Your task to perform on an android device: change keyboard looks Image 0: 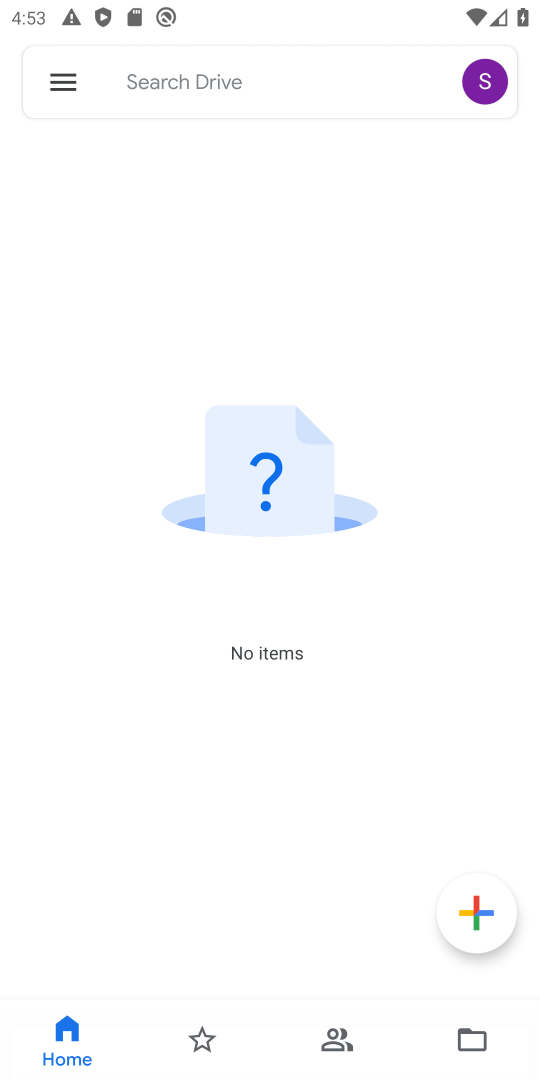
Step 0: press back button
Your task to perform on an android device: change keyboard looks Image 1: 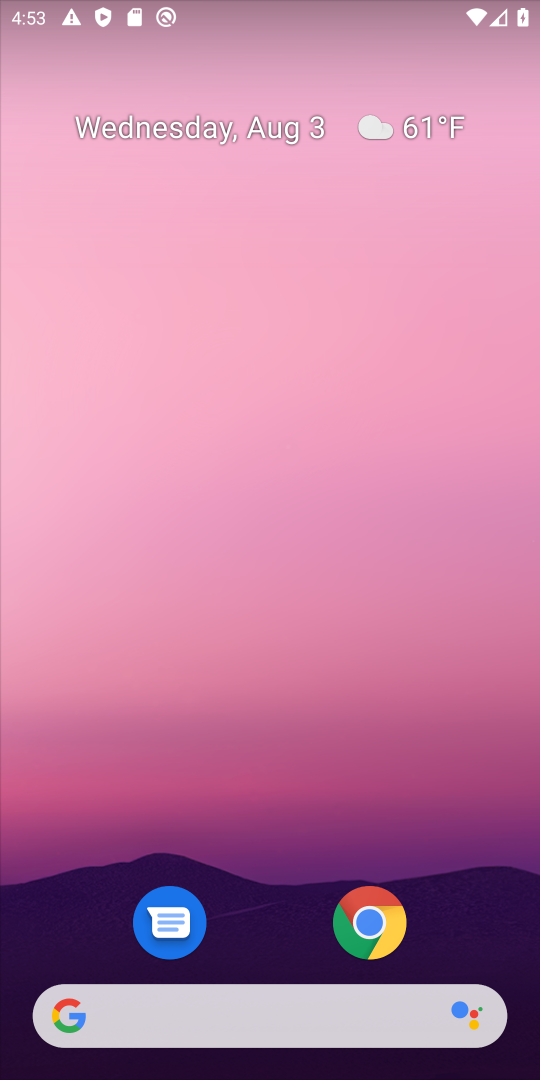
Step 1: drag from (471, 949) to (296, 31)
Your task to perform on an android device: change keyboard looks Image 2: 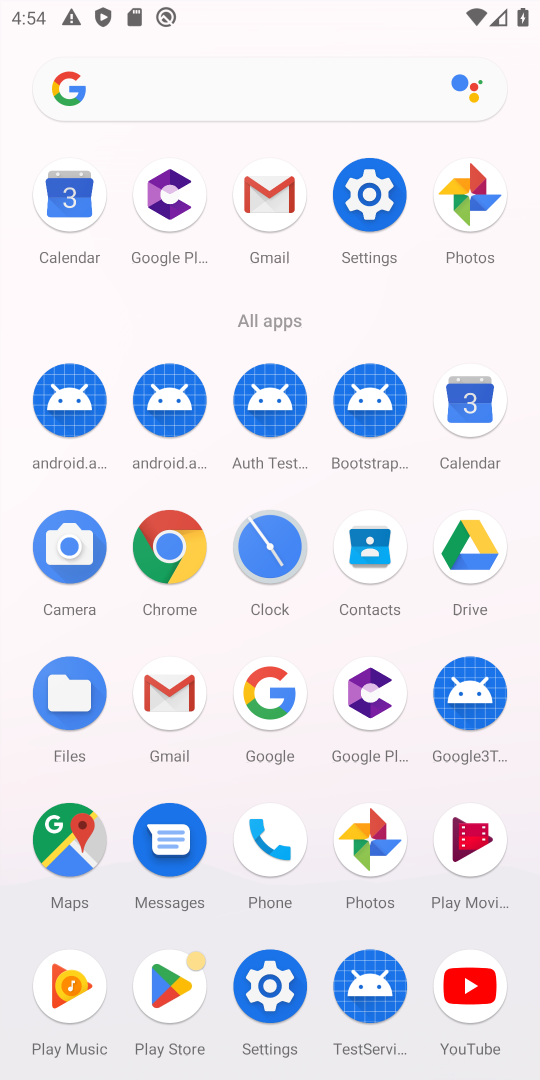
Step 2: click (385, 216)
Your task to perform on an android device: change keyboard looks Image 3: 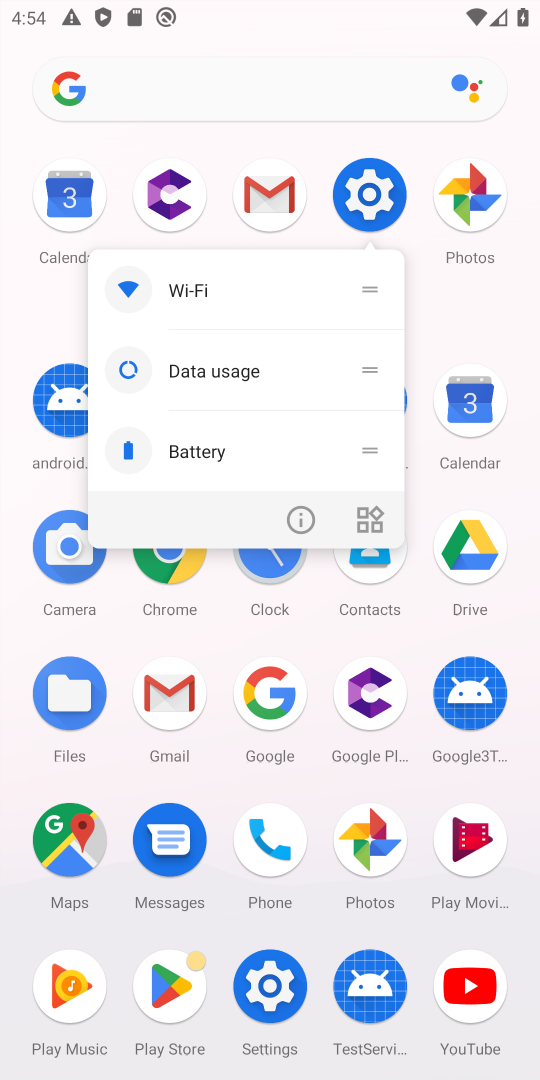
Step 3: click (385, 216)
Your task to perform on an android device: change keyboard looks Image 4: 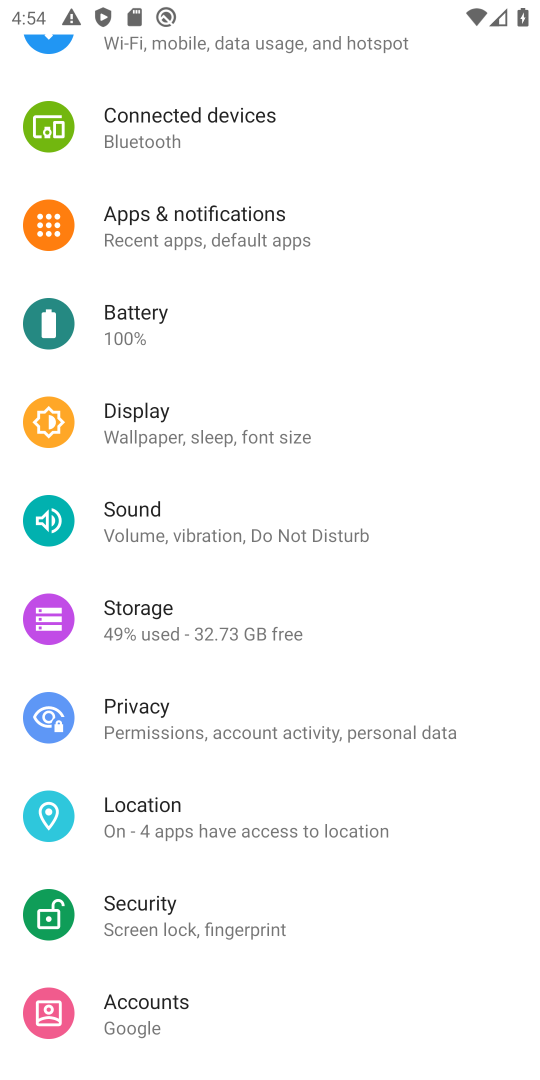
Step 4: drag from (370, 937) to (315, 144)
Your task to perform on an android device: change keyboard looks Image 5: 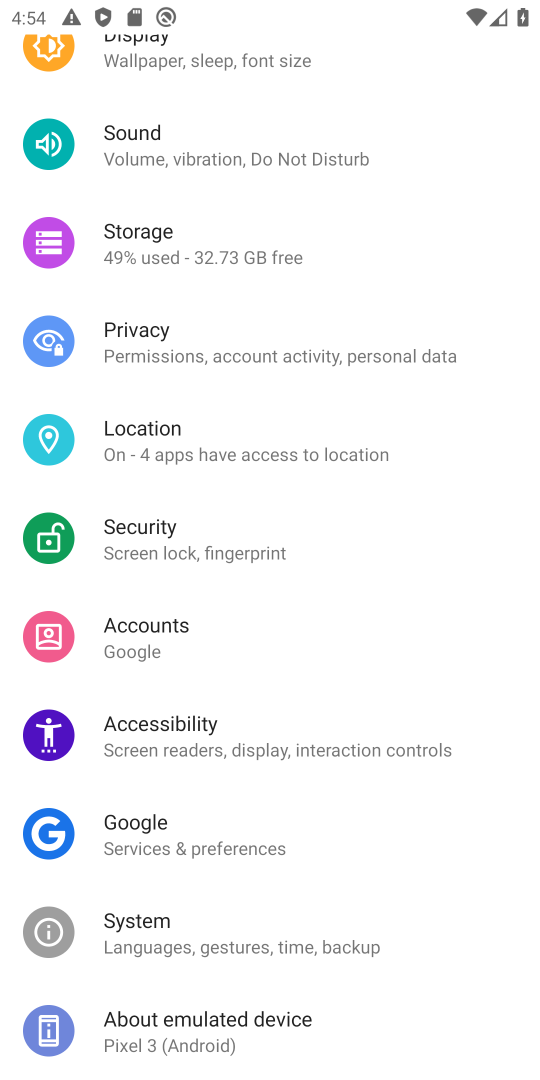
Step 5: click (279, 952)
Your task to perform on an android device: change keyboard looks Image 6: 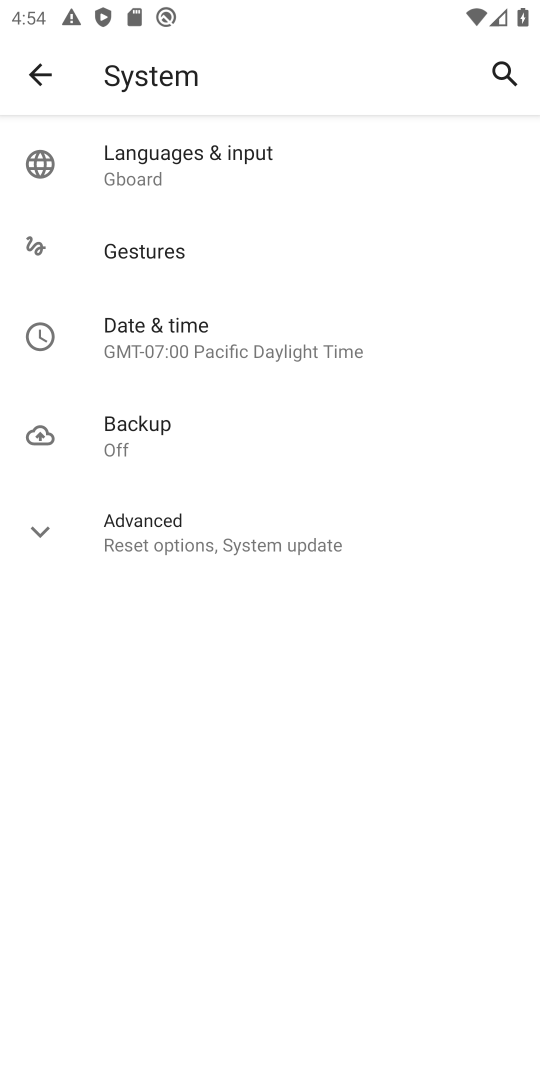
Step 6: click (229, 159)
Your task to perform on an android device: change keyboard looks Image 7: 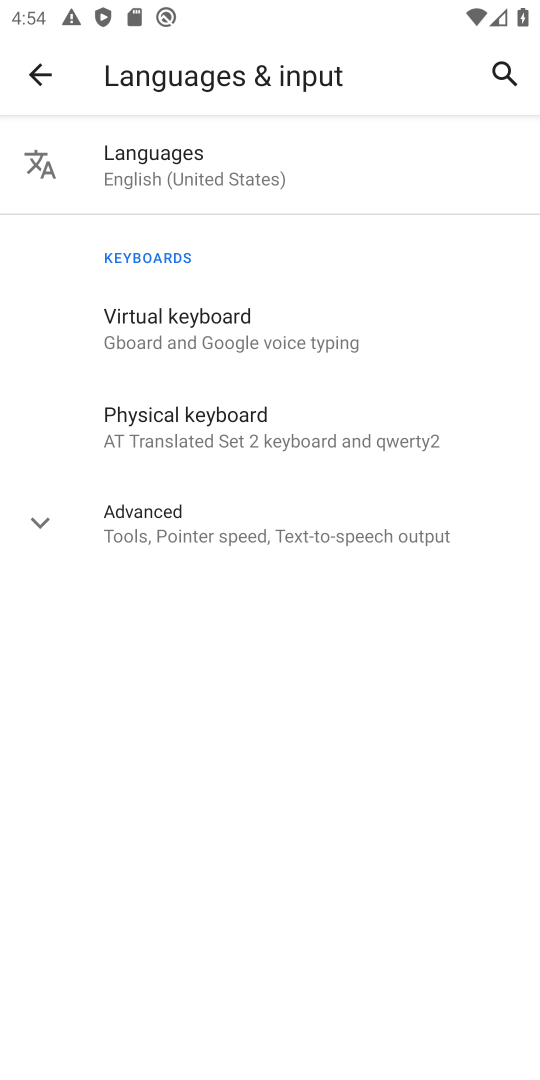
Step 7: click (240, 327)
Your task to perform on an android device: change keyboard looks Image 8: 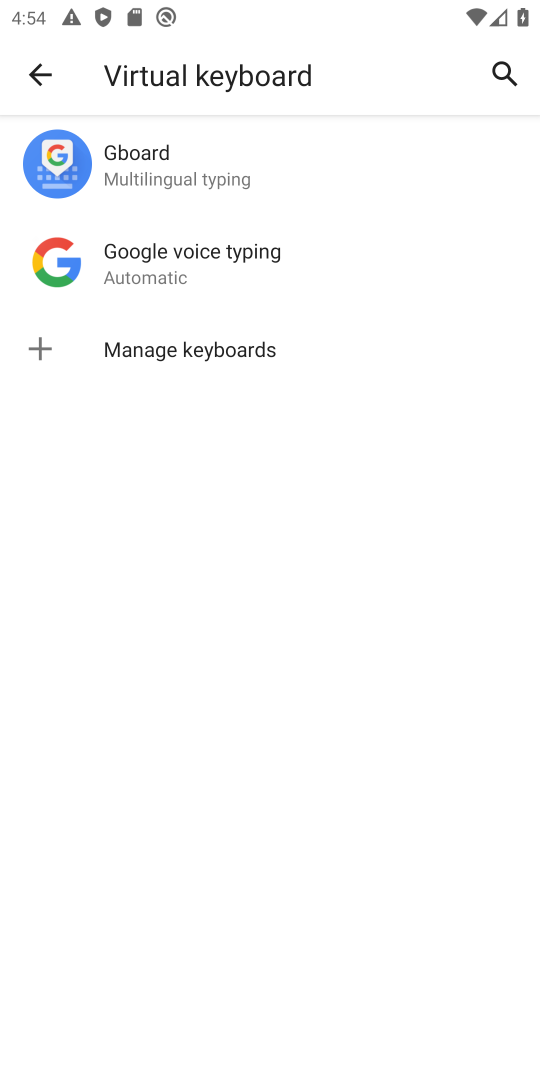
Step 8: click (204, 156)
Your task to perform on an android device: change keyboard looks Image 9: 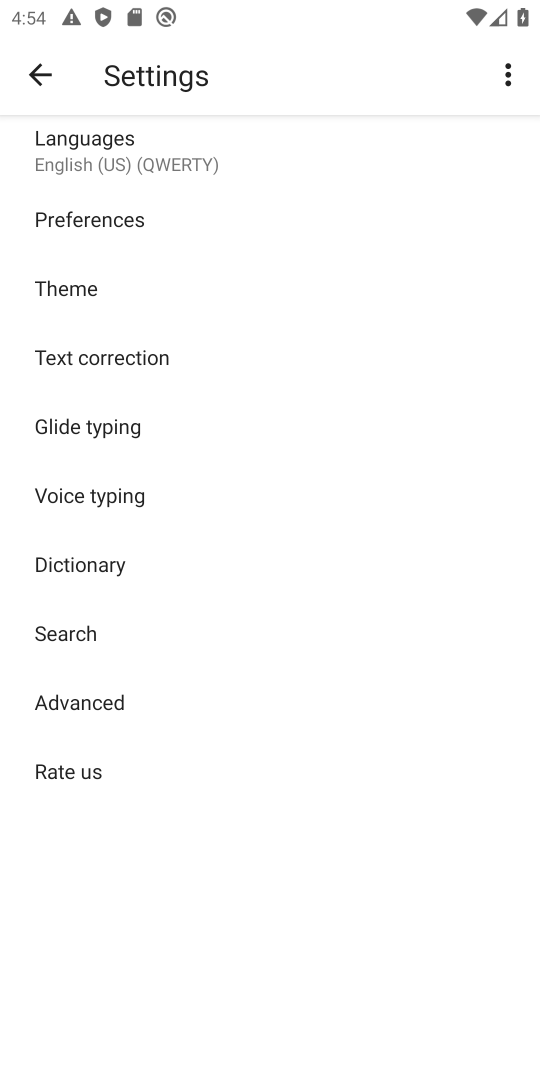
Step 9: click (324, 258)
Your task to perform on an android device: change keyboard looks Image 10: 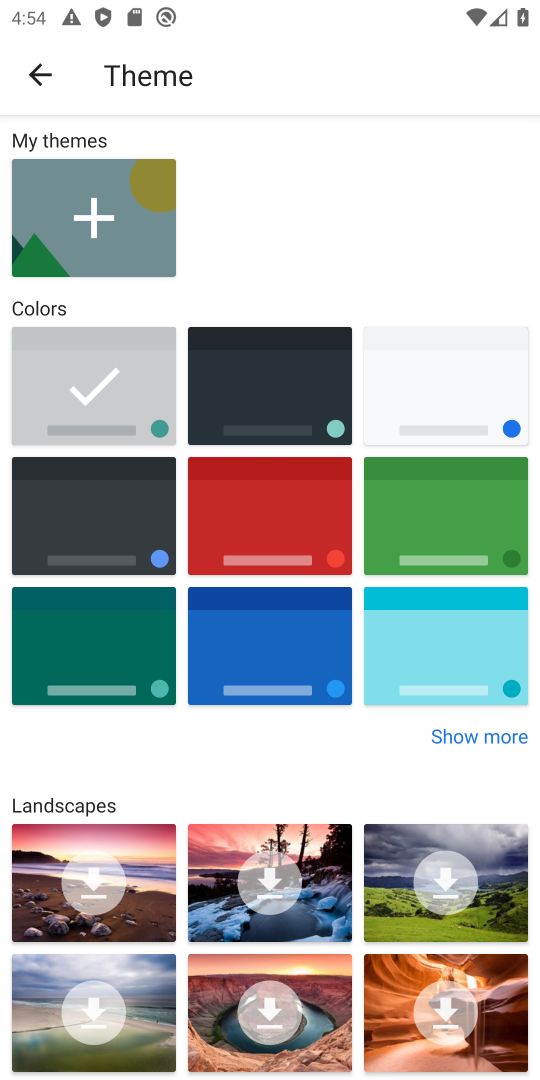
Step 10: click (283, 531)
Your task to perform on an android device: change keyboard looks Image 11: 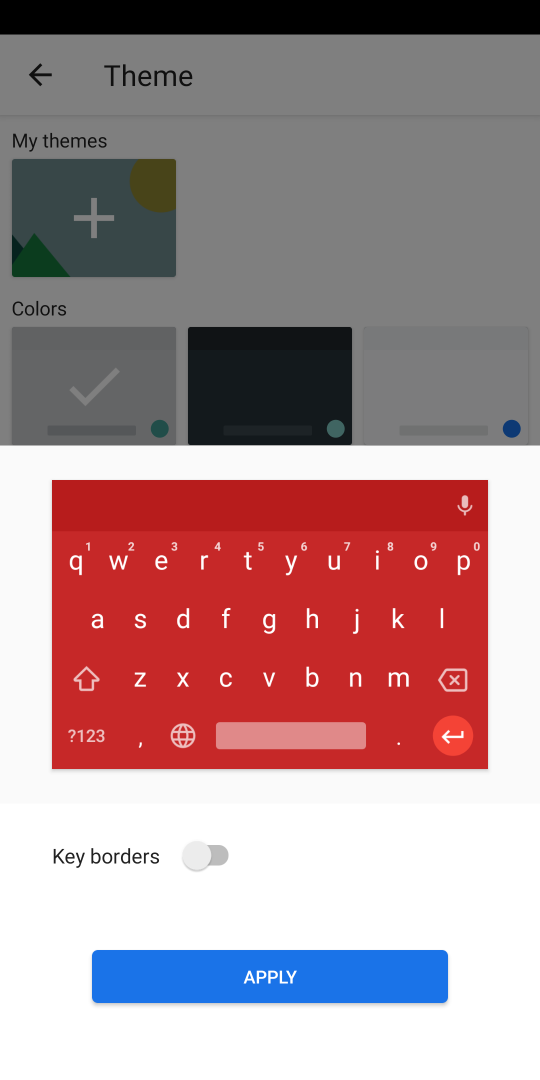
Step 11: click (271, 976)
Your task to perform on an android device: change keyboard looks Image 12: 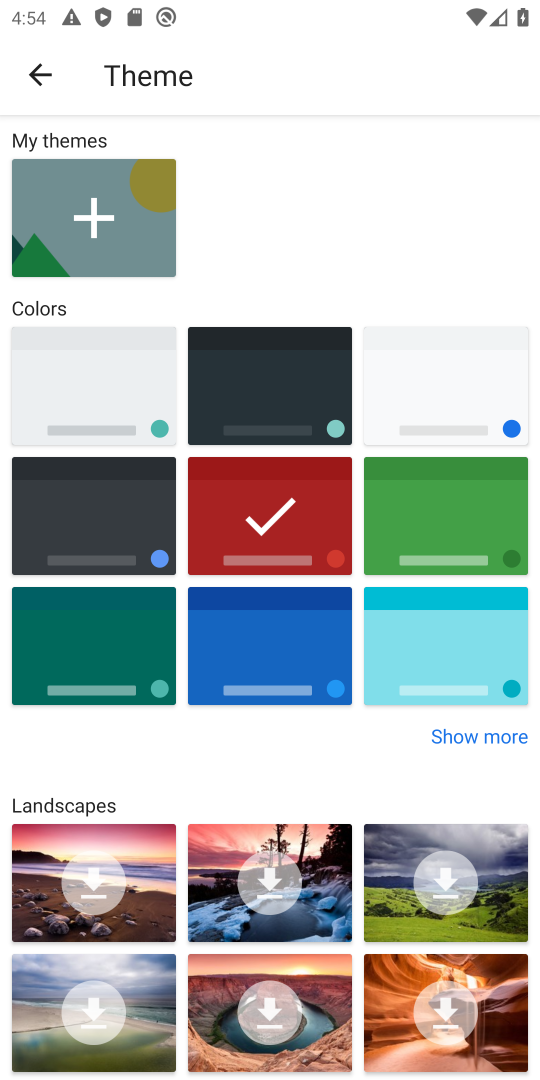
Step 12: task complete